Your task to perform on an android device: Turn off the flashlight Image 0: 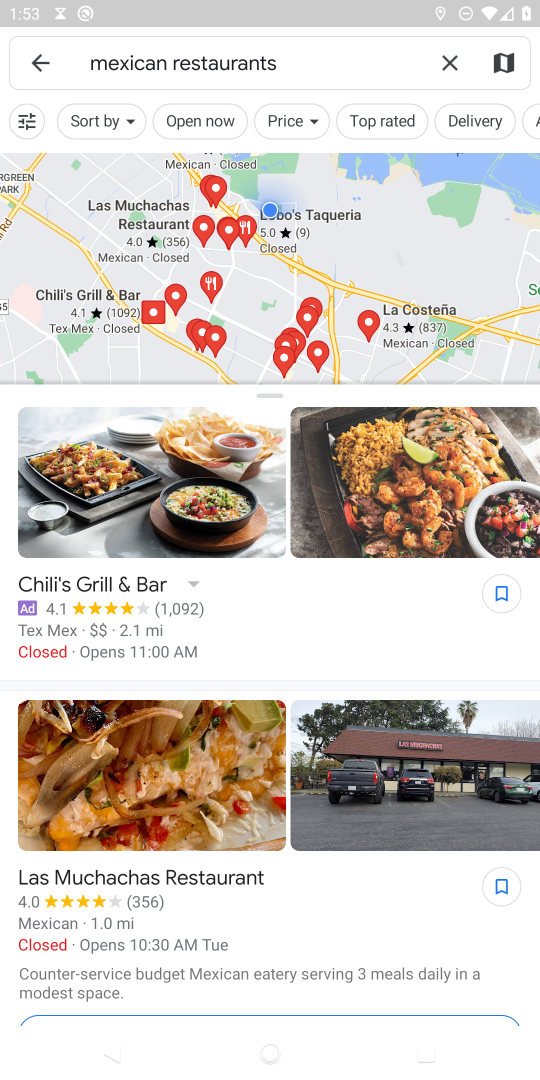
Step 0: press home button
Your task to perform on an android device: Turn off the flashlight Image 1: 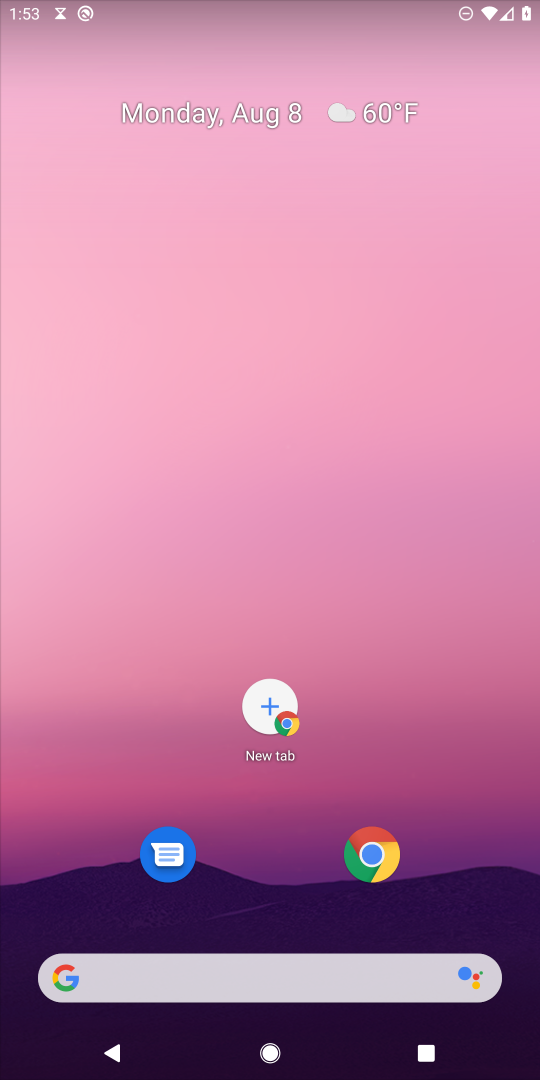
Step 1: task complete